Your task to perform on an android device: When is my next appointment? Image 0: 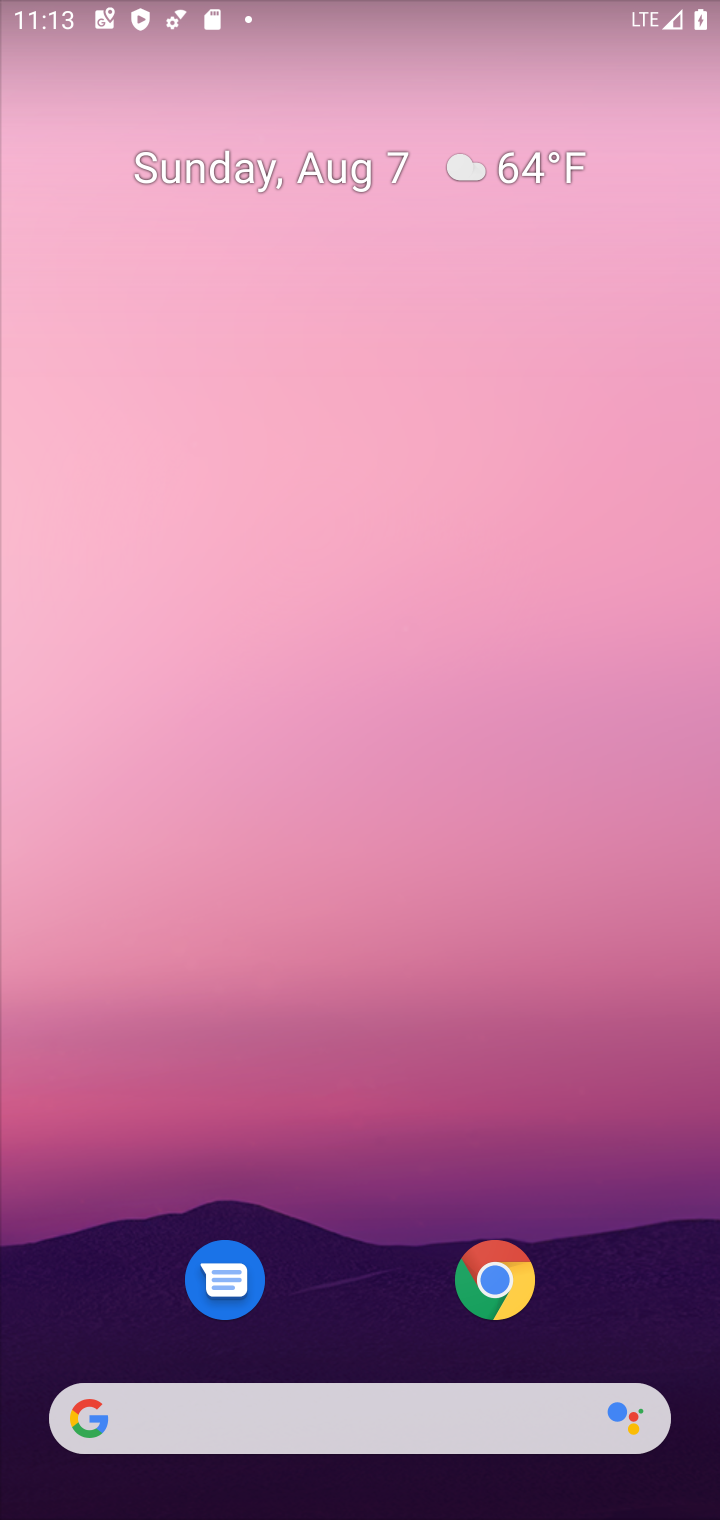
Step 0: drag from (292, 1318) to (378, 453)
Your task to perform on an android device: When is my next appointment? Image 1: 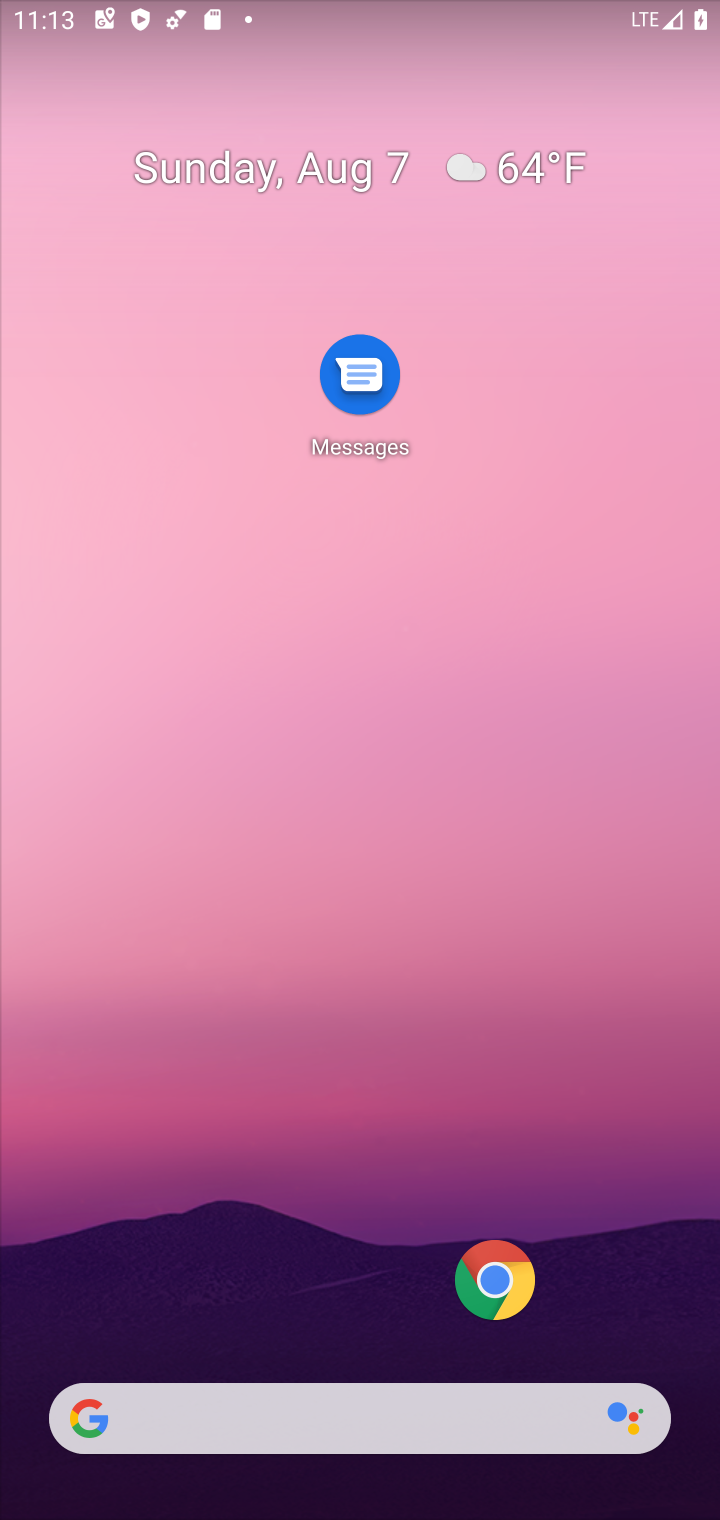
Step 1: drag from (218, 1298) to (319, 23)
Your task to perform on an android device: When is my next appointment? Image 2: 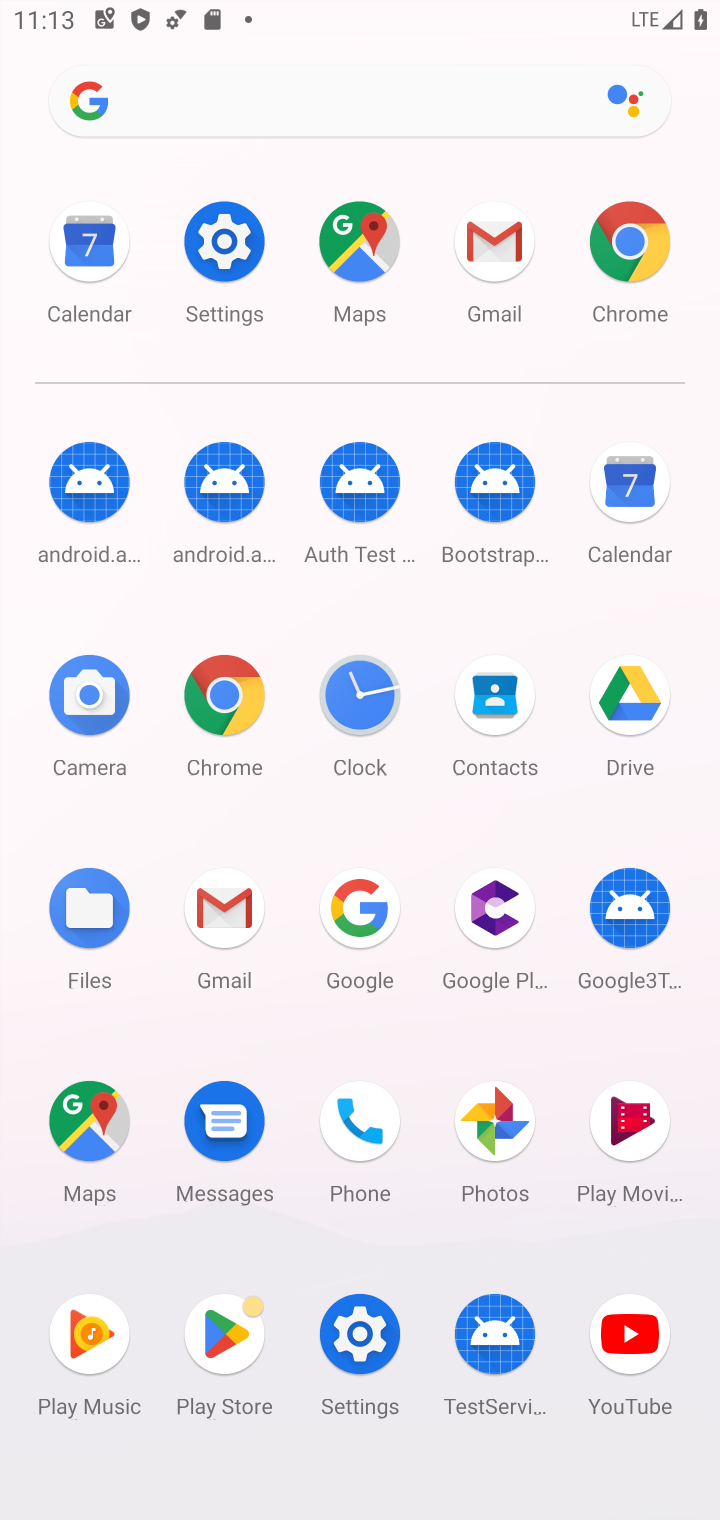
Step 2: click (639, 490)
Your task to perform on an android device: When is my next appointment? Image 3: 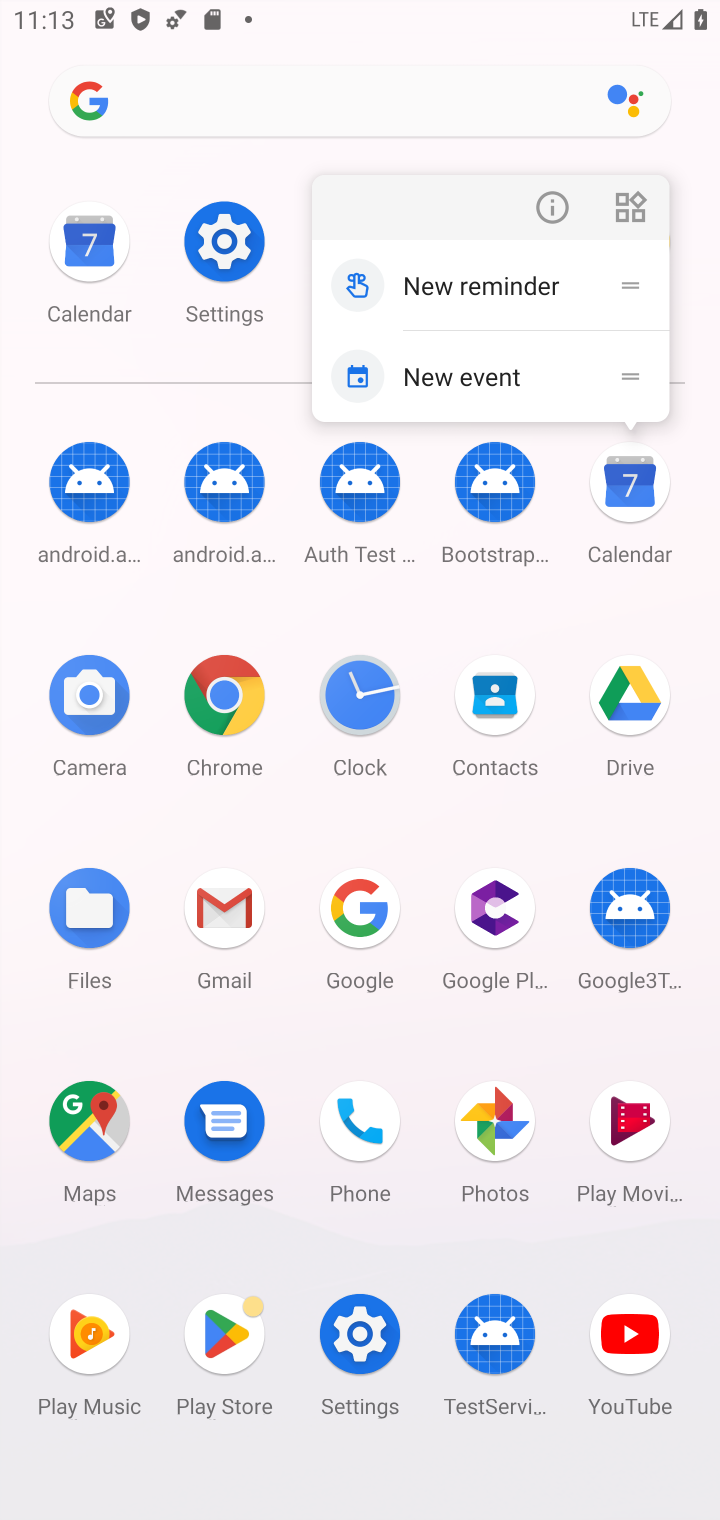
Step 3: click (625, 488)
Your task to perform on an android device: When is my next appointment? Image 4: 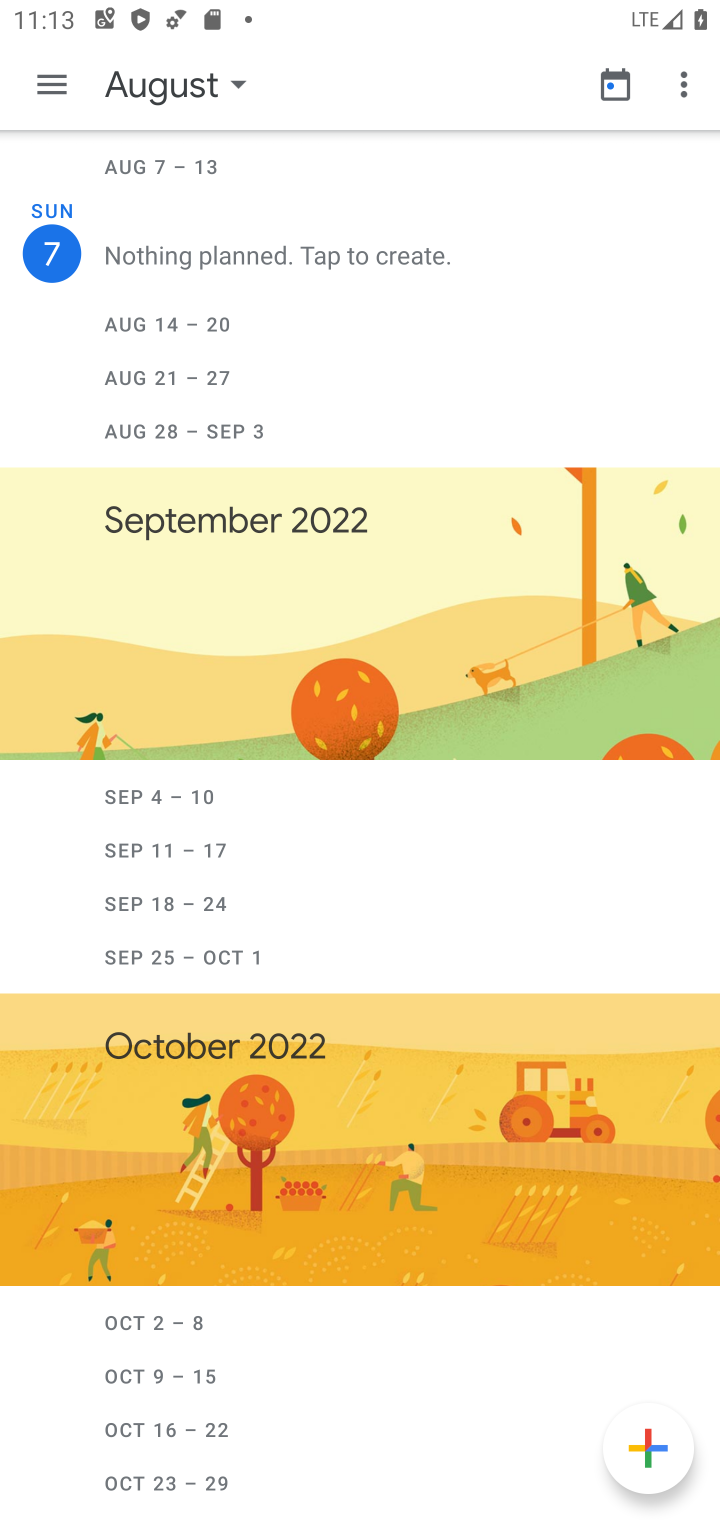
Step 4: task complete